Your task to perform on an android device: Show me popular games on the Play Store Image 0: 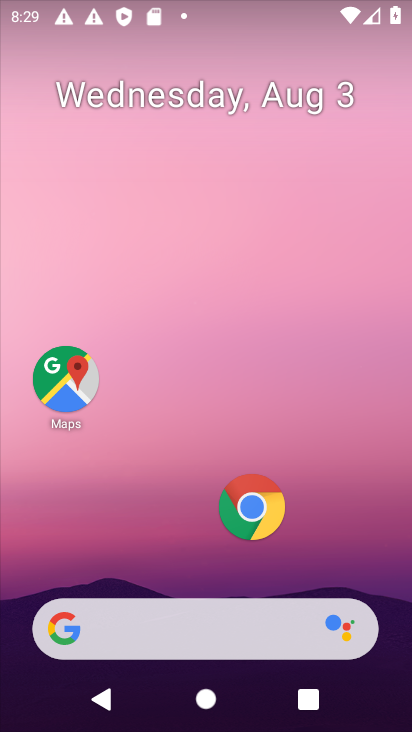
Step 0: drag from (195, 556) to (178, 120)
Your task to perform on an android device: Show me popular games on the Play Store Image 1: 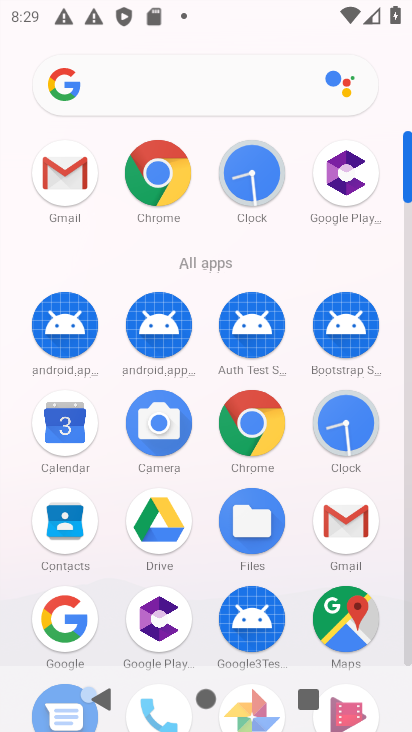
Step 1: drag from (198, 568) to (164, 247)
Your task to perform on an android device: Show me popular games on the Play Store Image 2: 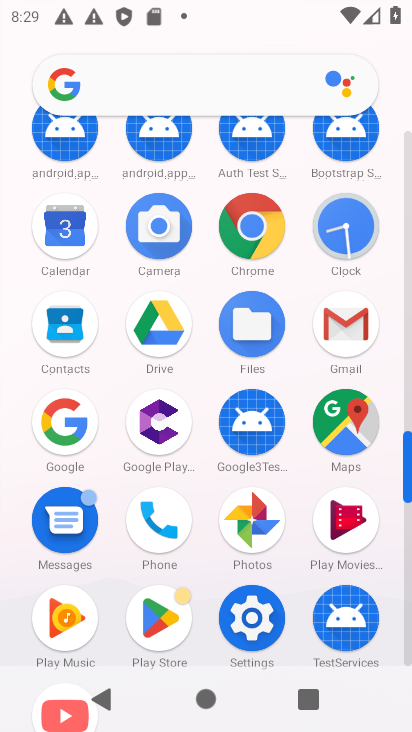
Step 2: click (152, 613)
Your task to perform on an android device: Show me popular games on the Play Store Image 3: 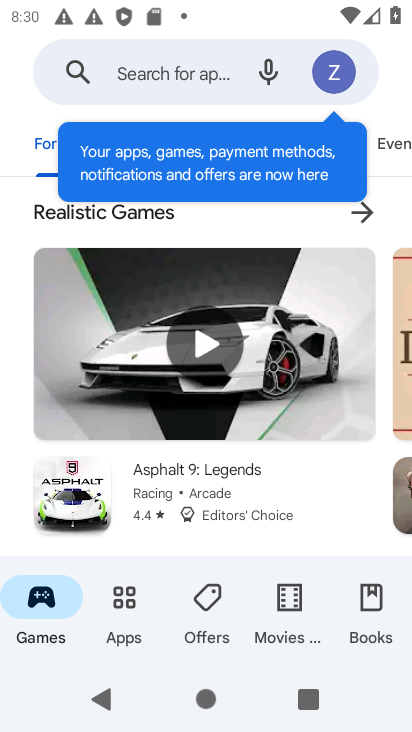
Step 3: task complete